Your task to perform on an android device: Search for Italian restaurants on Maps Image 0: 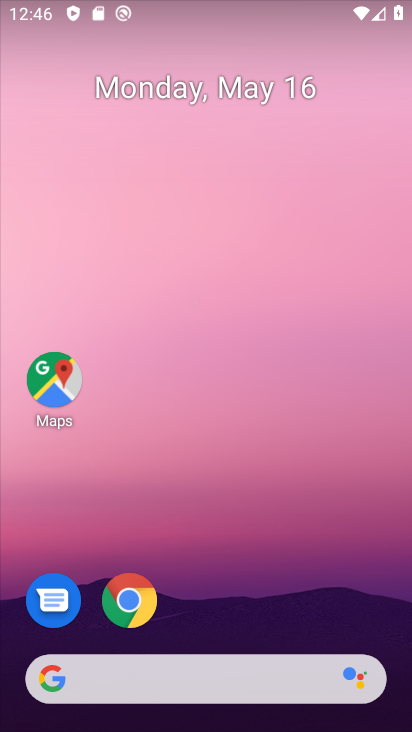
Step 0: click (60, 381)
Your task to perform on an android device: Search for Italian restaurants on Maps Image 1: 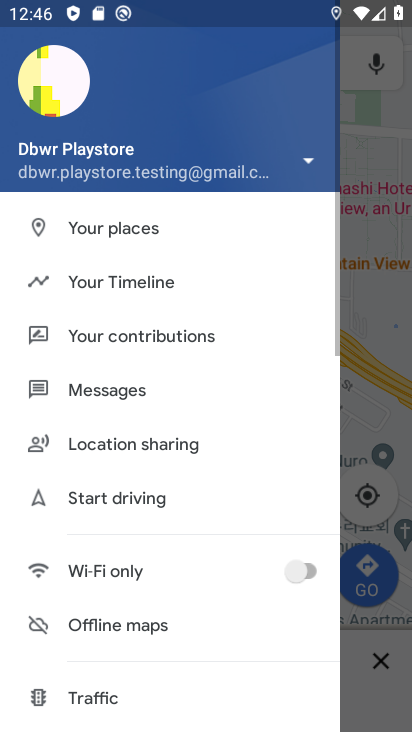
Step 1: click (380, 344)
Your task to perform on an android device: Search for Italian restaurants on Maps Image 2: 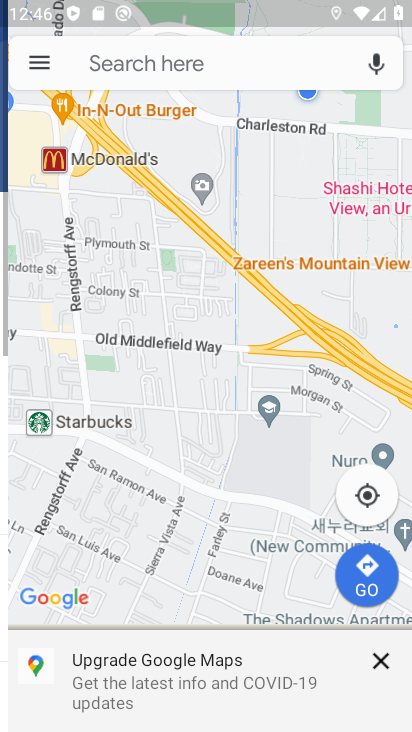
Step 2: click (362, 68)
Your task to perform on an android device: Search for Italian restaurants on Maps Image 3: 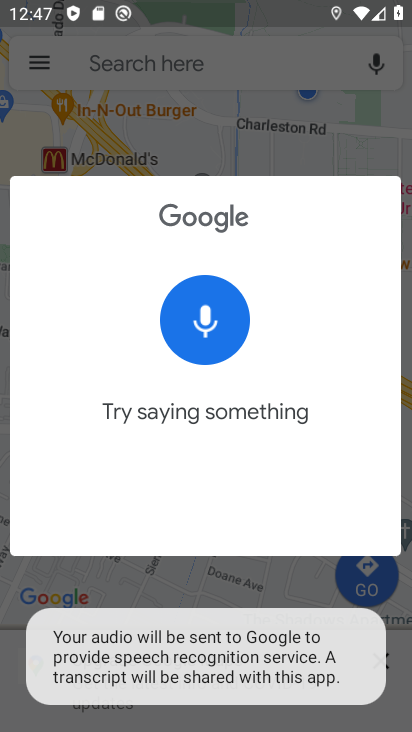
Step 3: drag from (314, 68) to (265, 68)
Your task to perform on an android device: Search for Italian restaurants on Maps Image 4: 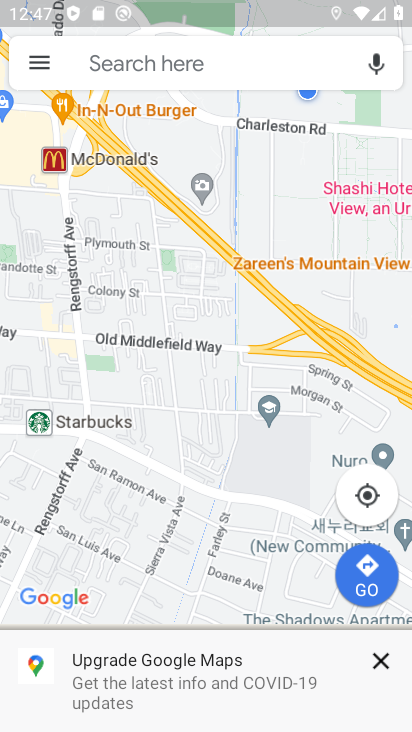
Step 4: drag from (314, 68) to (265, 68)
Your task to perform on an android device: Search for Italian restaurants on Maps Image 5: 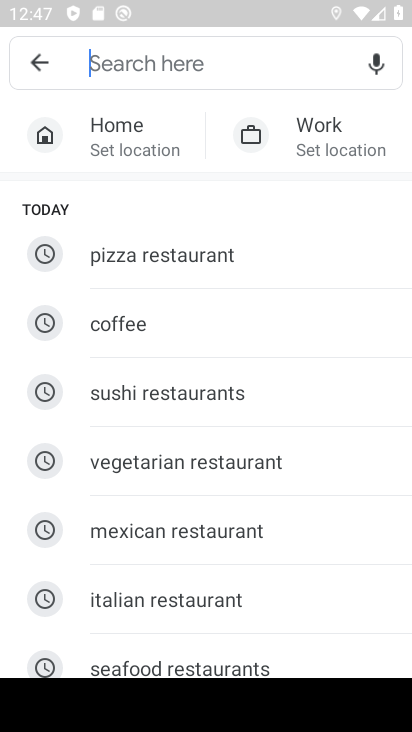
Step 5: click (186, 592)
Your task to perform on an android device: Search for Italian restaurants on Maps Image 6: 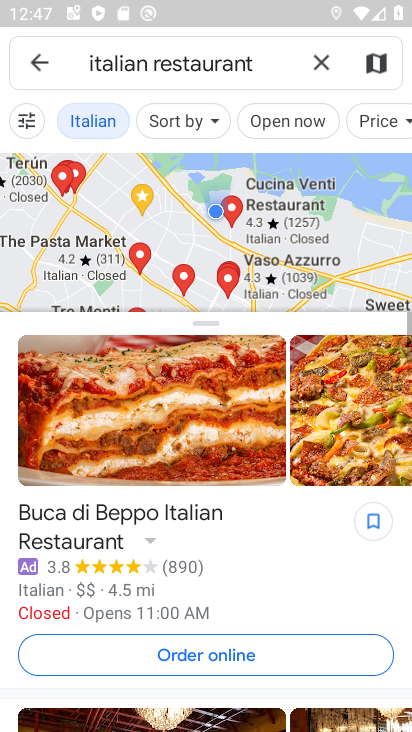
Step 6: task complete